Your task to perform on an android device: Open calendar and show me the fourth week of next month Image 0: 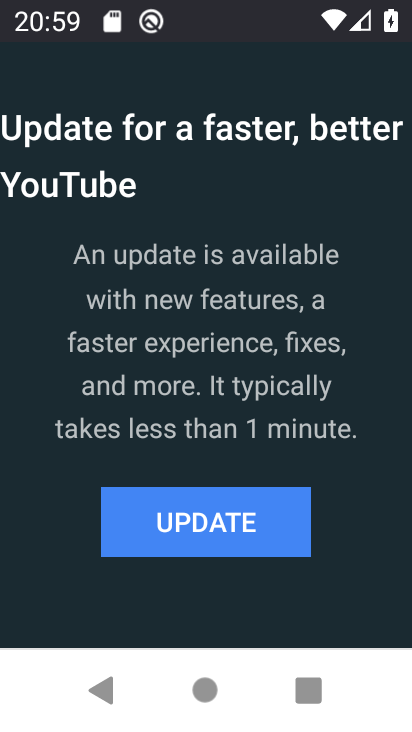
Step 0: press back button
Your task to perform on an android device: Open calendar and show me the fourth week of next month Image 1: 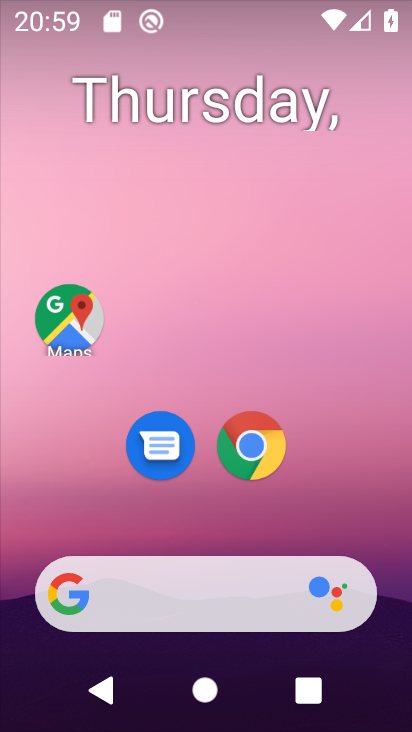
Step 1: drag from (232, 501) to (224, 152)
Your task to perform on an android device: Open calendar and show me the fourth week of next month Image 2: 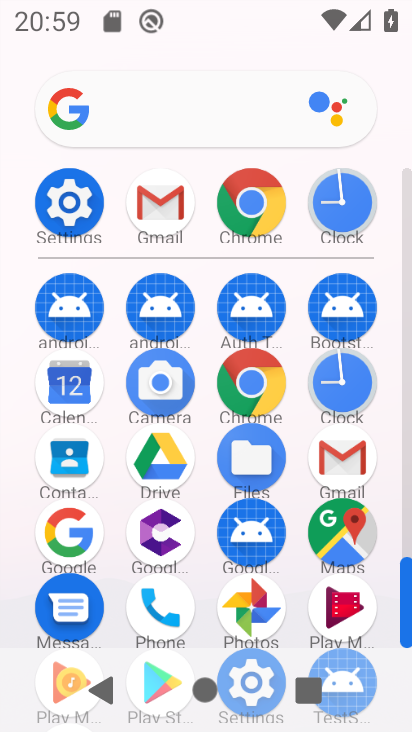
Step 2: click (67, 381)
Your task to perform on an android device: Open calendar and show me the fourth week of next month Image 3: 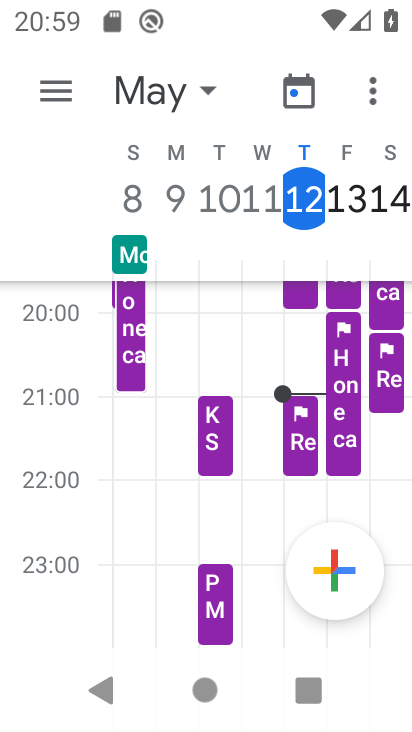
Step 3: click (180, 94)
Your task to perform on an android device: Open calendar and show me the fourth week of next month Image 4: 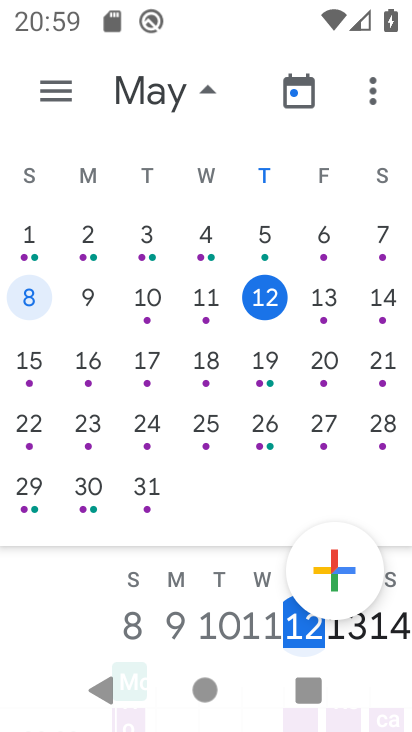
Step 4: drag from (341, 350) to (11, 329)
Your task to perform on an android device: Open calendar and show me the fourth week of next month Image 5: 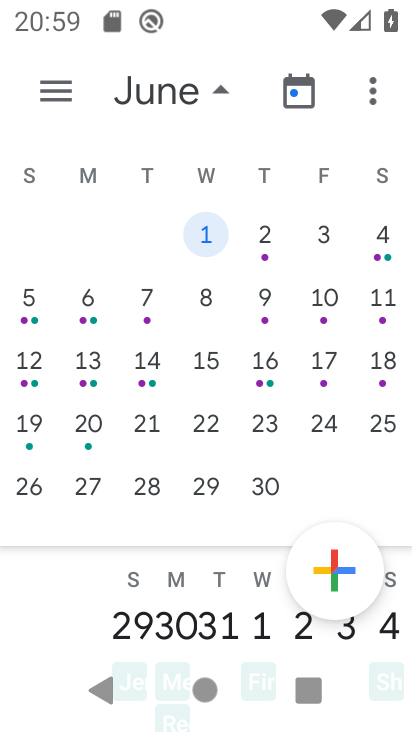
Step 5: click (31, 424)
Your task to perform on an android device: Open calendar and show me the fourth week of next month Image 6: 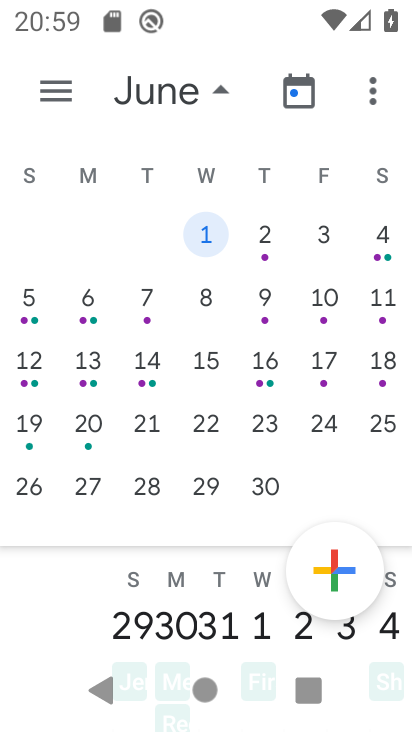
Step 6: click (33, 429)
Your task to perform on an android device: Open calendar and show me the fourth week of next month Image 7: 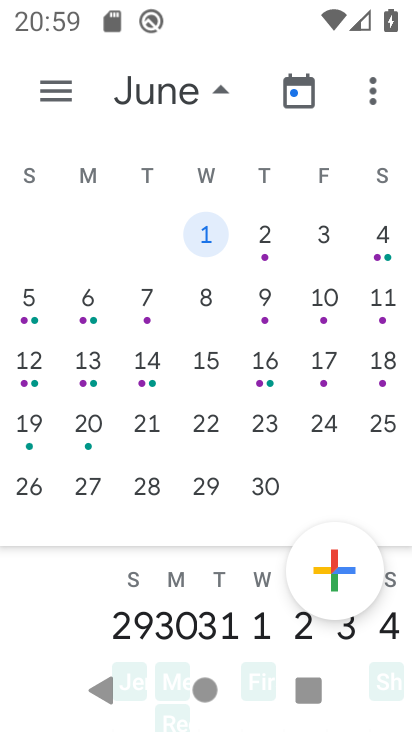
Step 7: click (36, 421)
Your task to perform on an android device: Open calendar and show me the fourth week of next month Image 8: 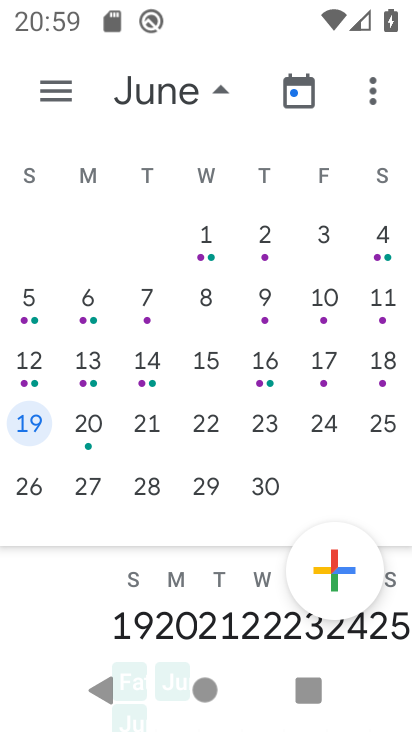
Step 8: click (58, 84)
Your task to perform on an android device: Open calendar and show me the fourth week of next month Image 9: 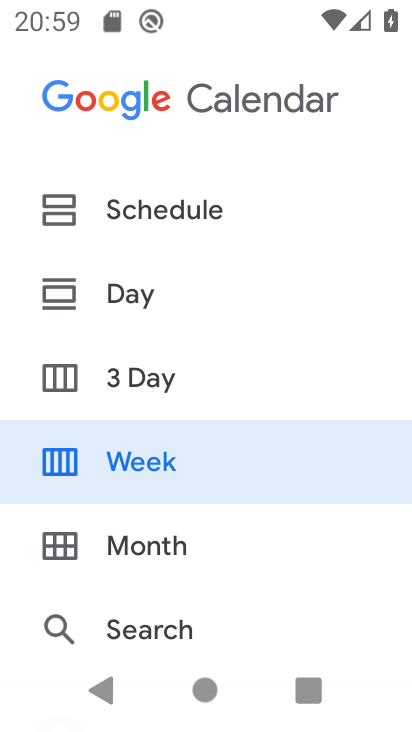
Step 9: click (109, 461)
Your task to perform on an android device: Open calendar and show me the fourth week of next month Image 10: 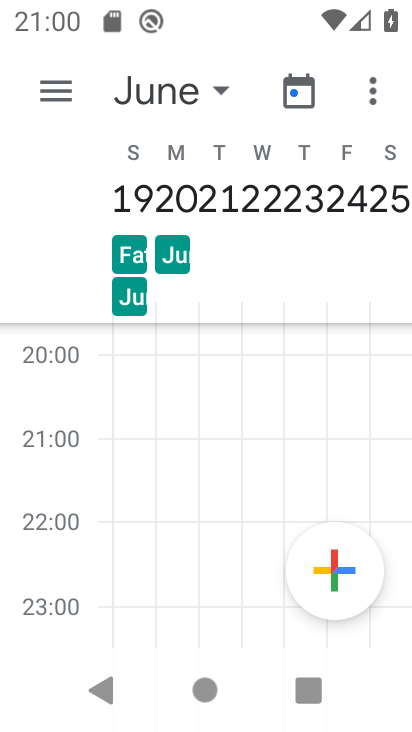
Step 10: task complete